Your task to perform on an android device: check storage Image 0: 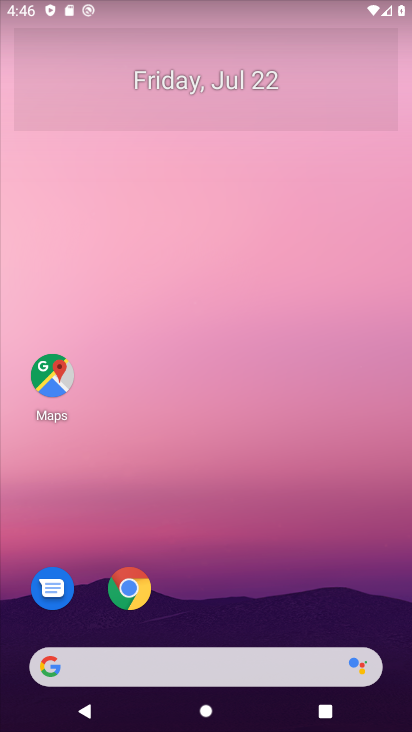
Step 0: drag from (331, 579) to (369, 305)
Your task to perform on an android device: check storage Image 1: 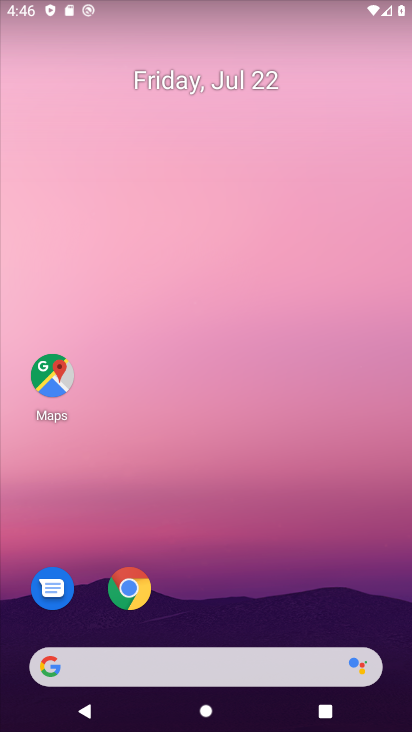
Step 1: drag from (238, 523) to (248, 303)
Your task to perform on an android device: check storage Image 2: 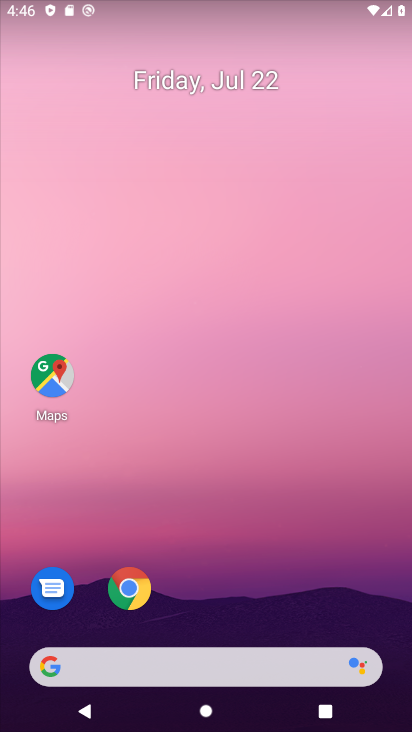
Step 2: drag from (233, 579) to (263, 225)
Your task to perform on an android device: check storage Image 3: 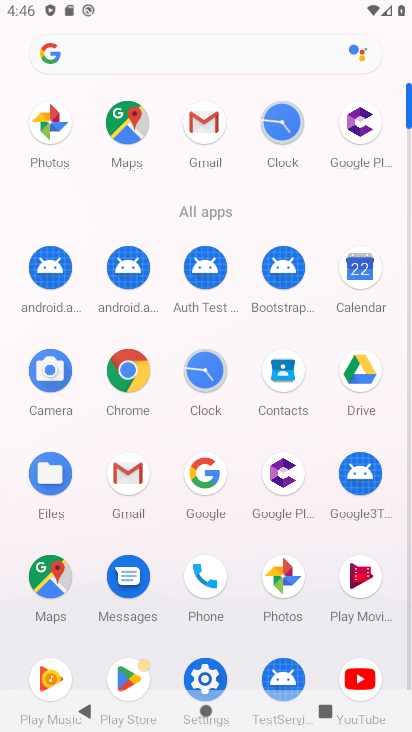
Step 3: click (203, 681)
Your task to perform on an android device: check storage Image 4: 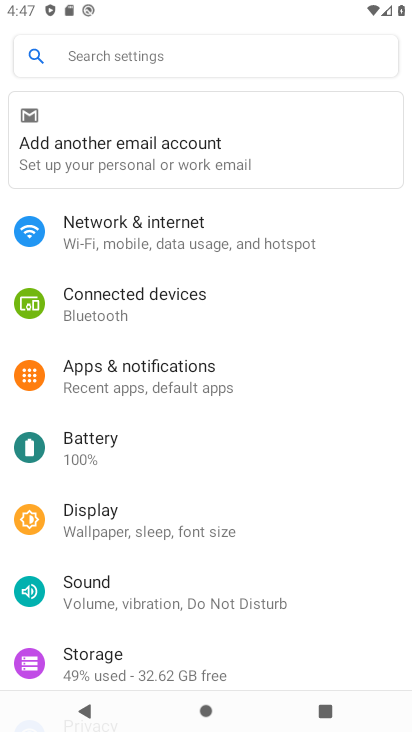
Step 4: click (129, 669)
Your task to perform on an android device: check storage Image 5: 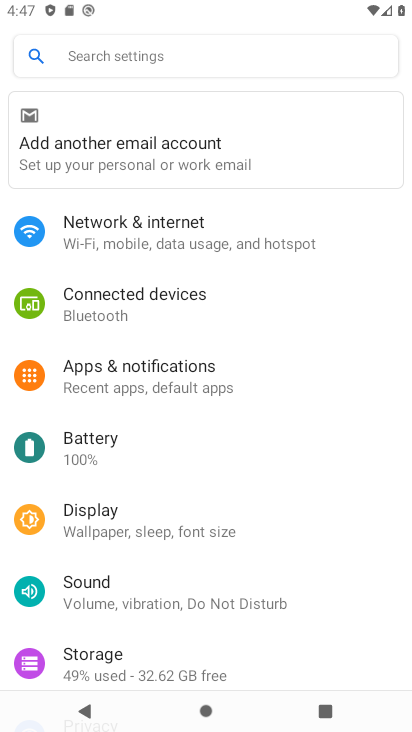
Step 5: click (129, 669)
Your task to perform on an android device: check storage Image 6: 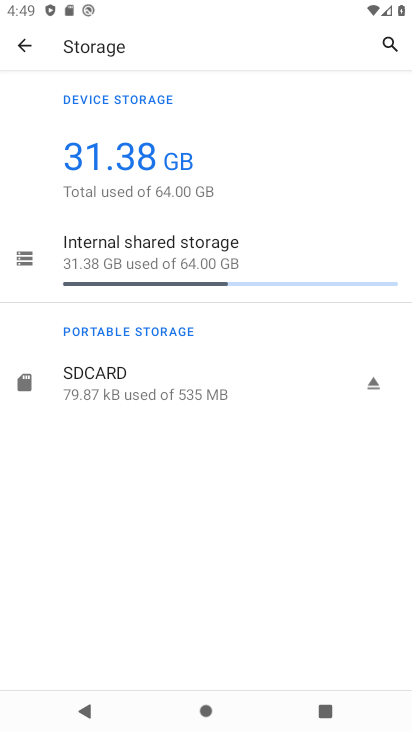
Step 6: task complete